Your task to perform on an android device: Show me recent news Image 0: 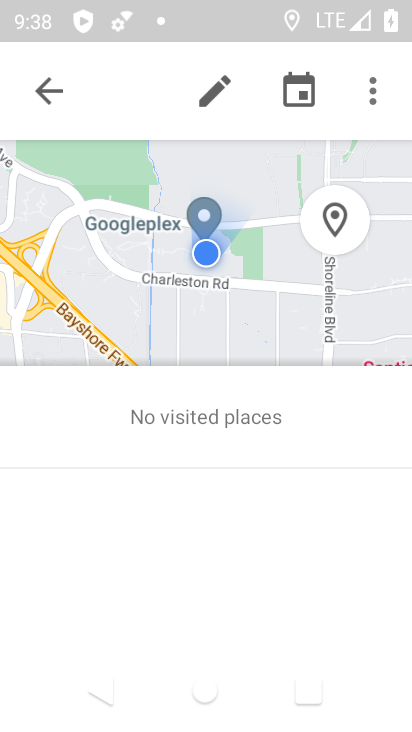
Step 0: press home button
Your task to perform on an android device: Show me recent news Image 1: 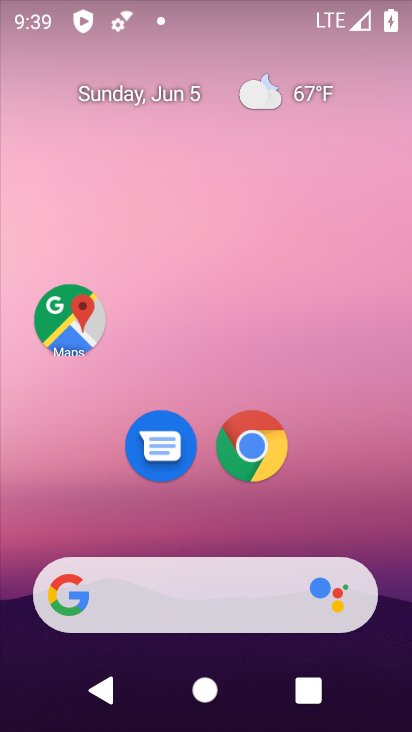
Step 1: drag from (196, 541) to (207, 166)
Your task to perform on an android device: Show me recent news Image 2: 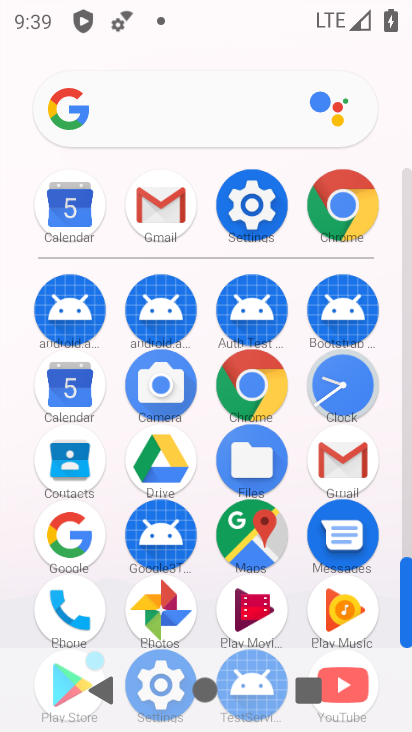
Step 2: click (75, 533)
Your task to perform on an android device: Show me recent news Image 3: 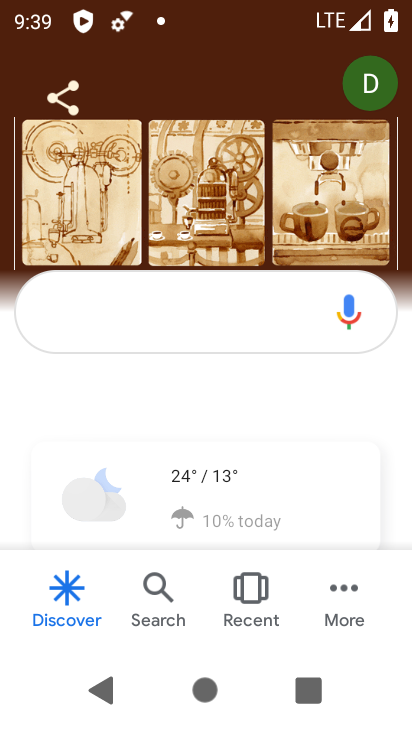
Step 3: click (178, 320)
Your task to perform on an android device: Show me recent news Image 4: 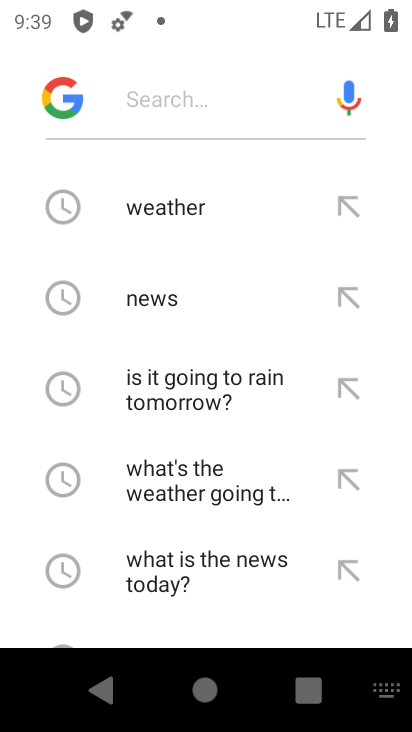
Step 4: click (158, 304)
Your task to perform on an android device: Show me recent news Image 5: 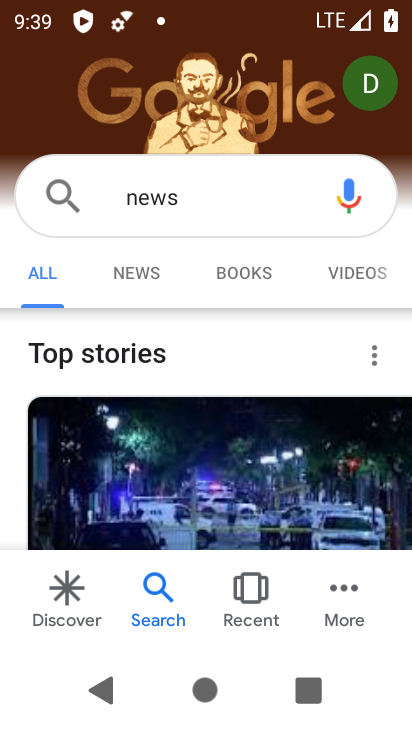
Step 5: click (123, 279)
Your task to perform on an android device: Show me recent news Image 6: 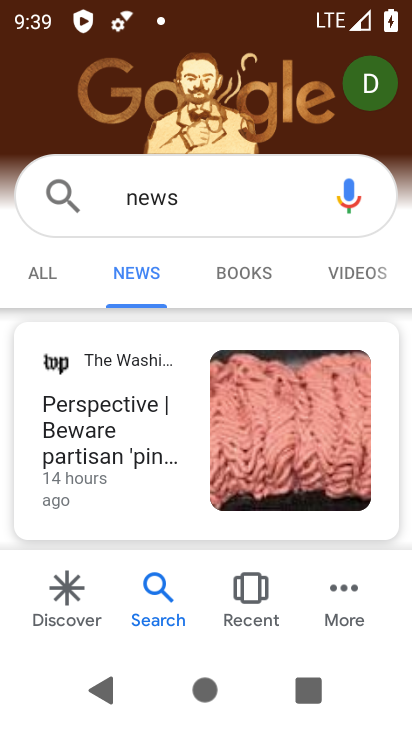
Step 6: task complete